Your task to perform on an android device: refresh tabs in the chrome app Image 0: 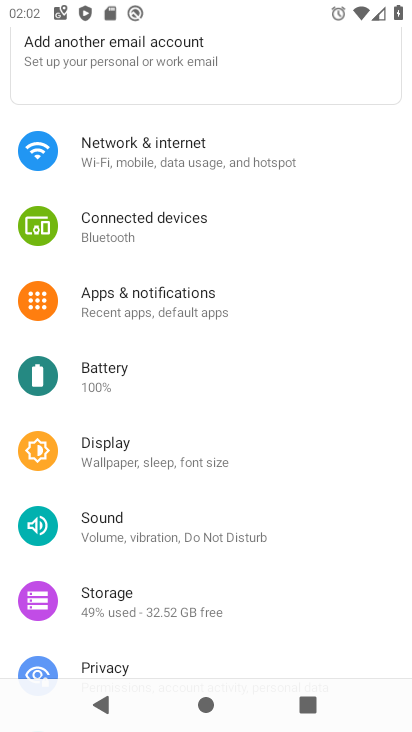
Step 0: press home button
Your task to perform on an android device: refresh tabs in the chrome app Image 1: 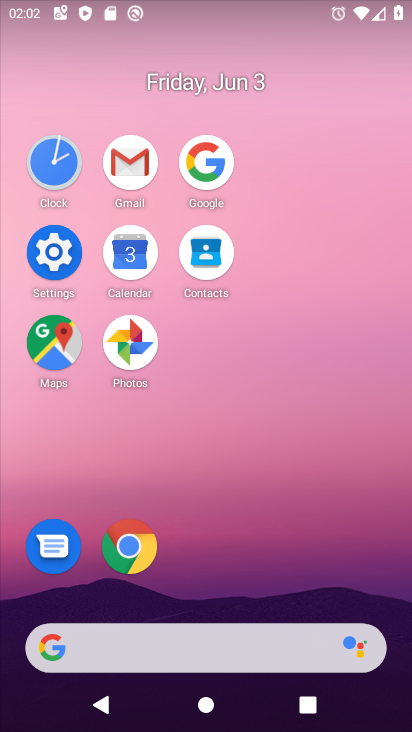
Step 1: click (131, 553)
Your task to perform on an android device: refresh tabs in the chrome app Image 2: 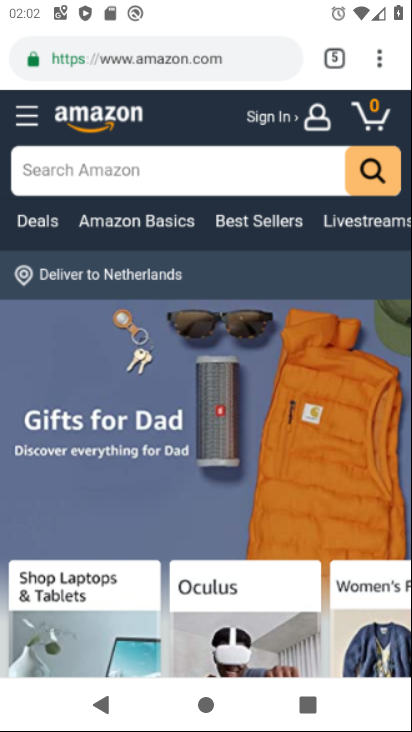
Step 2: click (381, 68)
Your task to perform on an android device: refresh tabs in the chrome app Image 3: 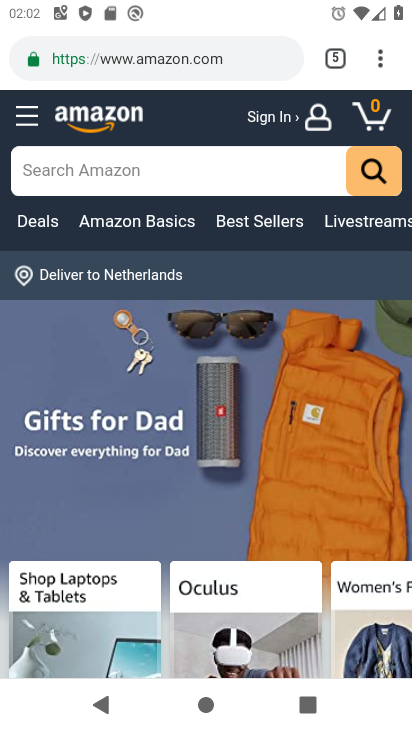
Step 3: click (378, 49)
Your task to perform on an android device: refresh tabs in the chrome app Image 4: 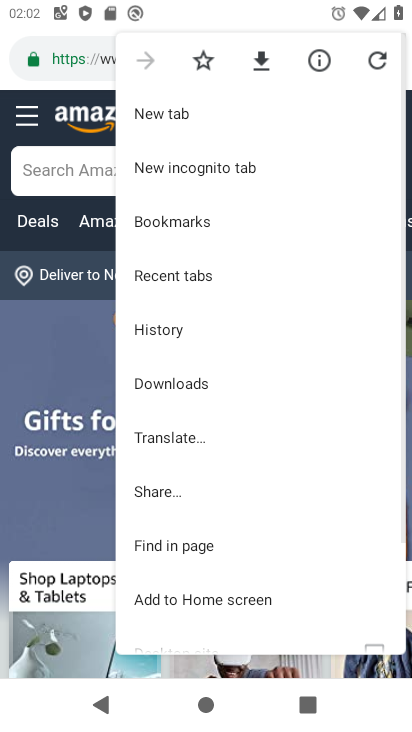
Step 4: click (386, 54)
Your task to perform on an android device: refresh tabs in the chrome app Image 5: 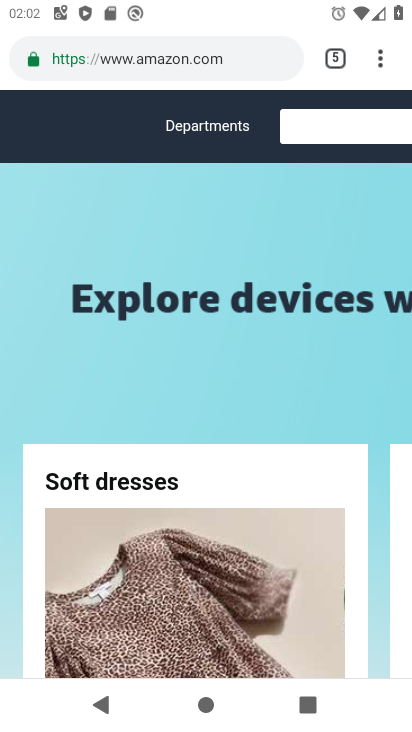
Step 5: task complete